Your task to perform on an android device: change the clock display to digital Image 0: 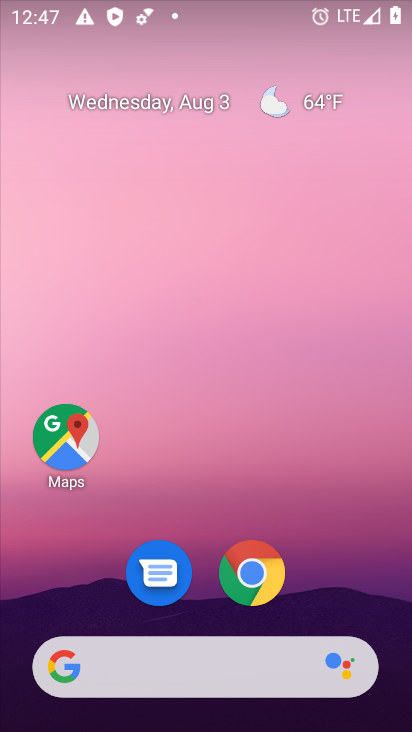
Step 0: drag from (187, 614) to (169, 145)
Your task to perform on an android device: change the clock display to digital Image 1: 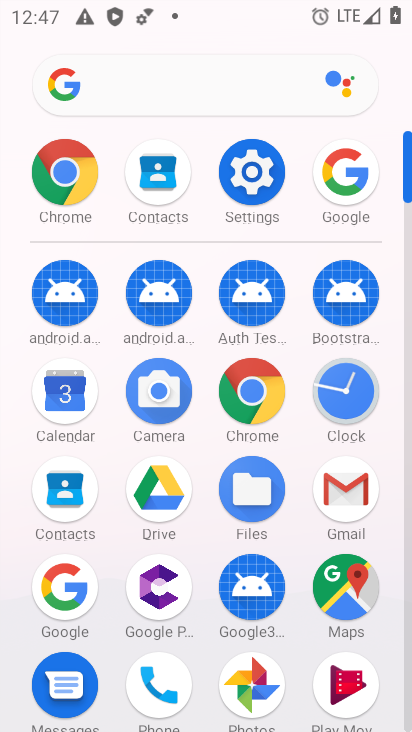
Step 1: drag from (203, 483) to (196, 199)
Your task to perform on an android device: change the clock display to digital Image 2: 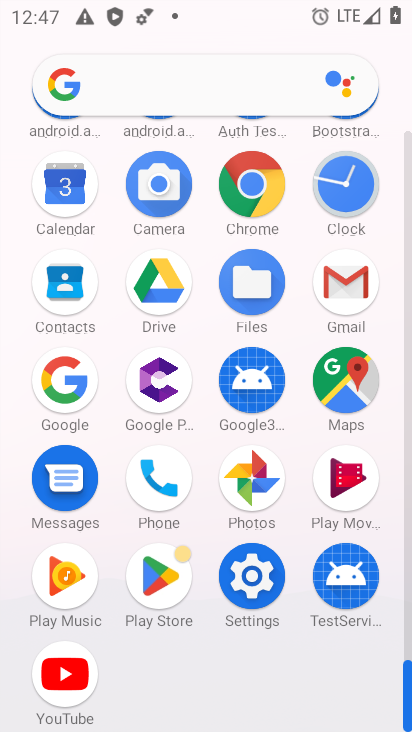
Step 2: click (339, 189)
Your task to perform on an android device: change the clock display to digital Image 3: 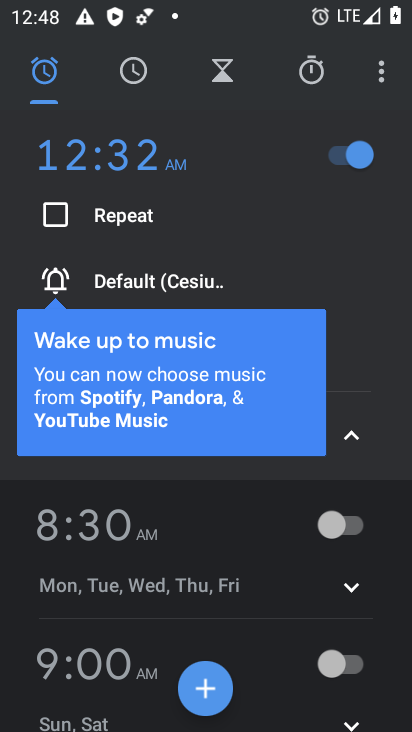
Step 3: click (391, 72)
Your task to perform on an android device: change the clock display to digital Image 4: 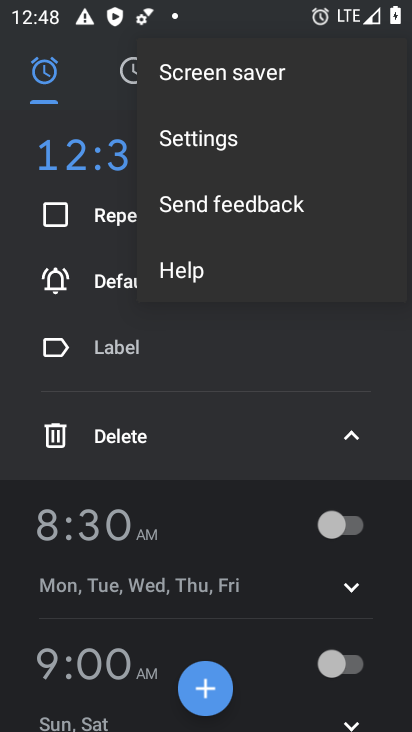
Step 4: click (197, 139)
Your task to perform on an android device: change the clock display to digital Image 5: 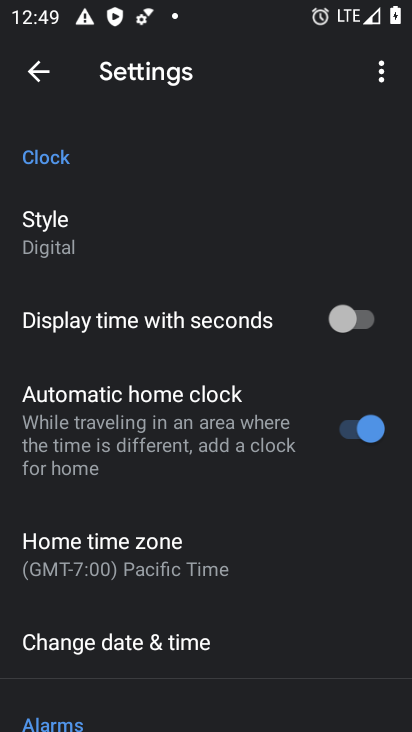
Step 5: click (141, 239)
Your task to perform on an android device: change the clock display to digital Image 6: 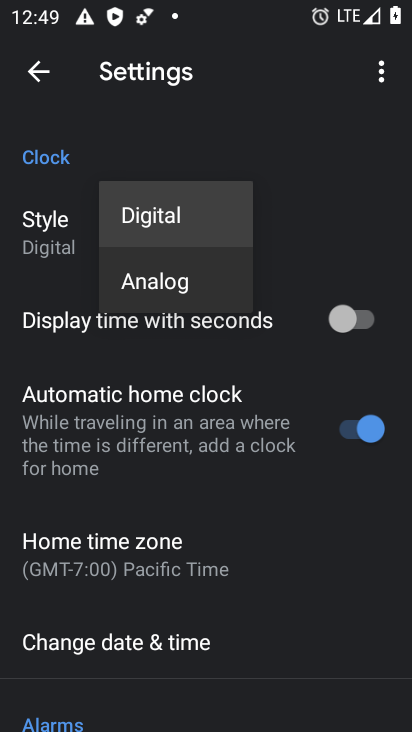
Step 6: task complete